Your task to perform on an android device: empty trash in google photos Image 0: 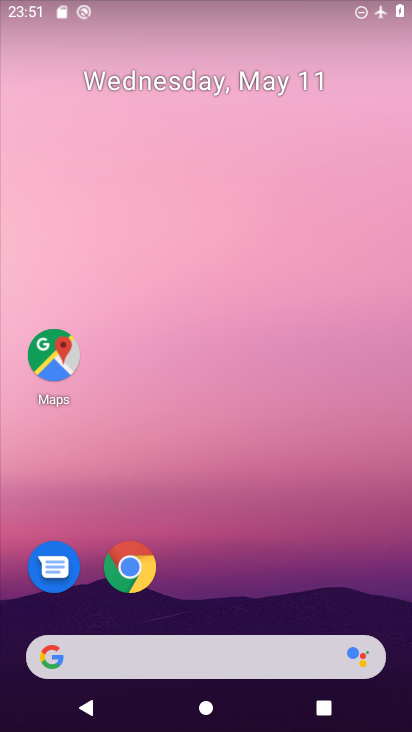
Step 0: drag from (145, 658) to (135, 115)
Your task to perform on an android device: empty trash in google photos Image 1: 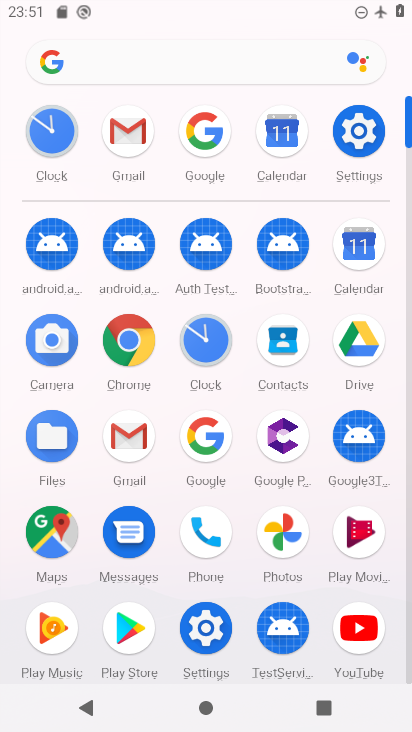
Step 1: click (284, 534)
Your task to perform on an android device: empty trash in google photos Image 2: 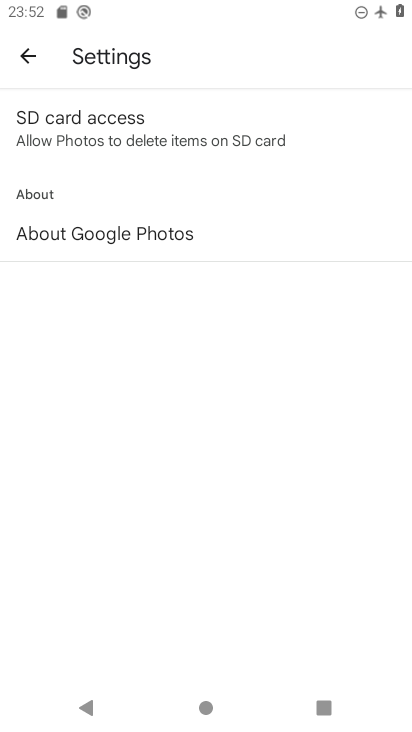
Step 2: click (30, 64)
Your task to perform on an android device: empty trash in google photos Image 3: 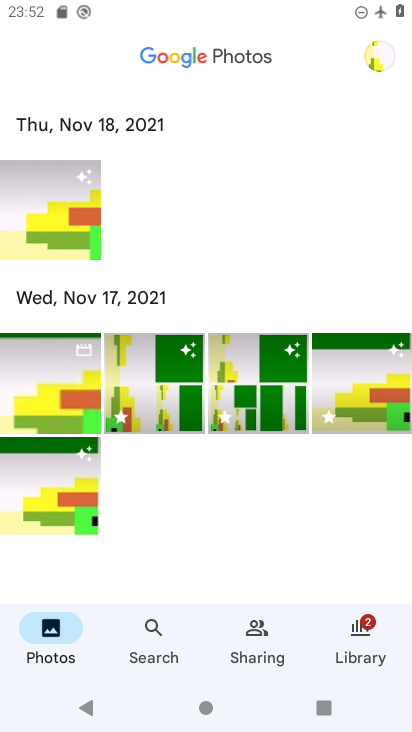
Step 3: click (363, 626)
Your task to perform on an android device: empty trash in google photos Image 4: 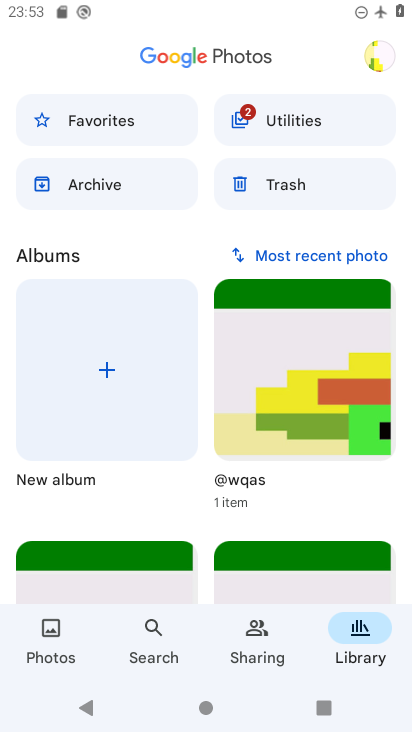
Step 4: click (238, 181)
Your task to perform on an android device: empty trash in google photos Image 5: 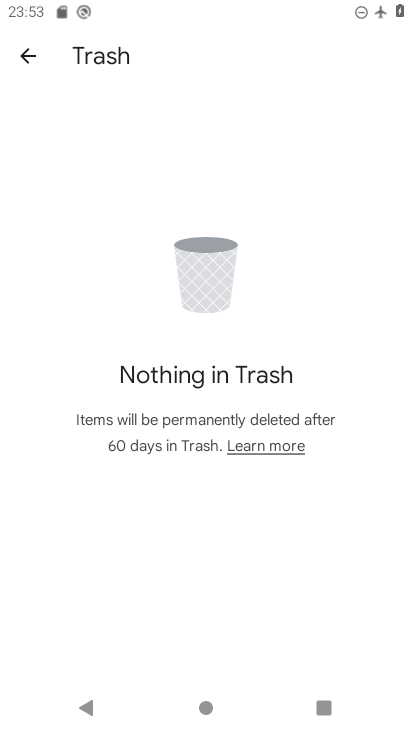
Step 5: task complete